Your task to perform on an android device: star an email in the gmail app Image 0: 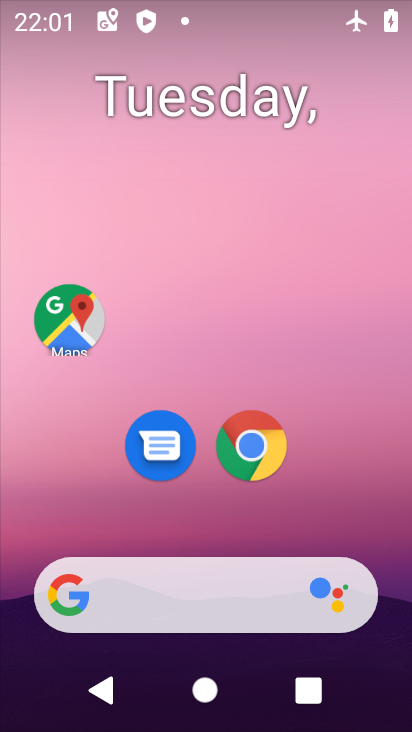
Step 0: drag from (404, 610) to (315, 138)
Your task to perform on an android device: star an email in the gmail app Image 1: 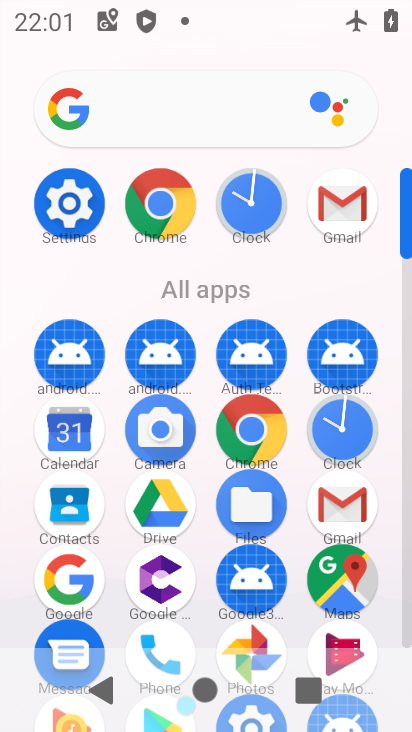
Step 1: click (338, 186)
Your task to perform on an android device: star an email in the gmail app Image 2: 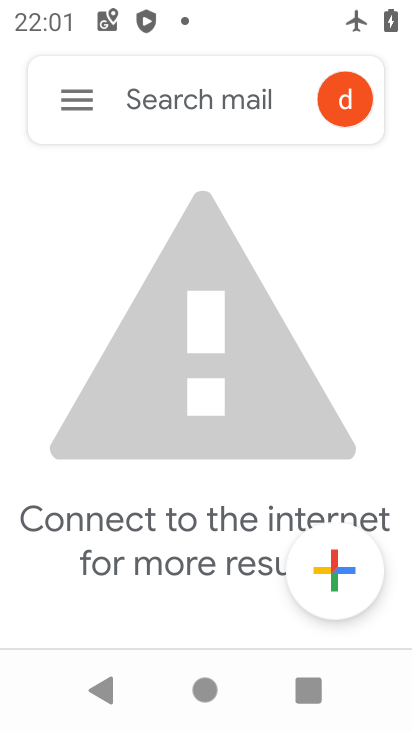
Step 2: task complete